Your task to perform on an android device: visit the assistant section in the google photos Image 0: 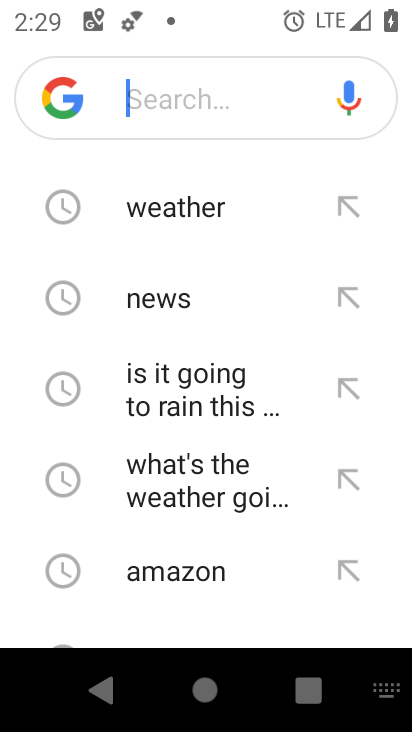
Step 0: press home button
Your task to perform on an android device: visit the assistant section in the google photos Image 1: 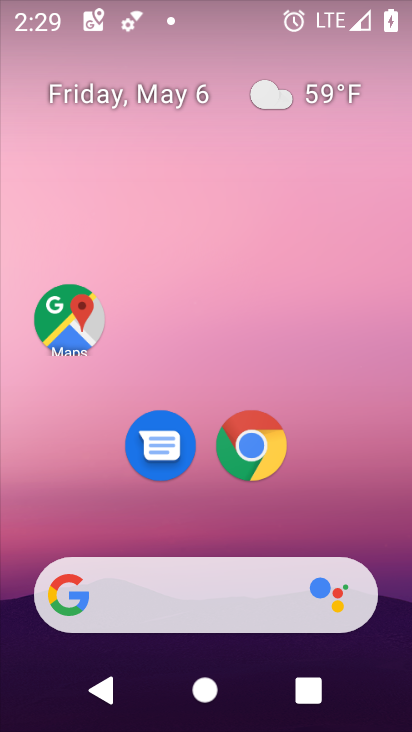
Step 1: drag from (286, 528) to (249, 175)
Your task to perform on an android device: visit the assistant section in the google photos Image 2: 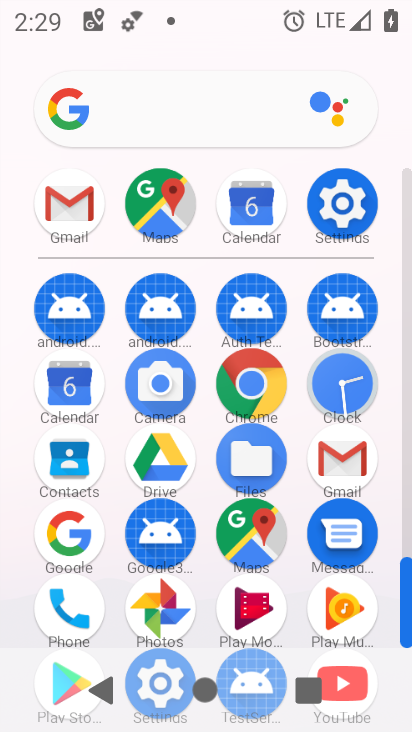
Step 2: click (143, 611)
Your task to perform on an android device: visit the assistant section in the google photos Image 3: 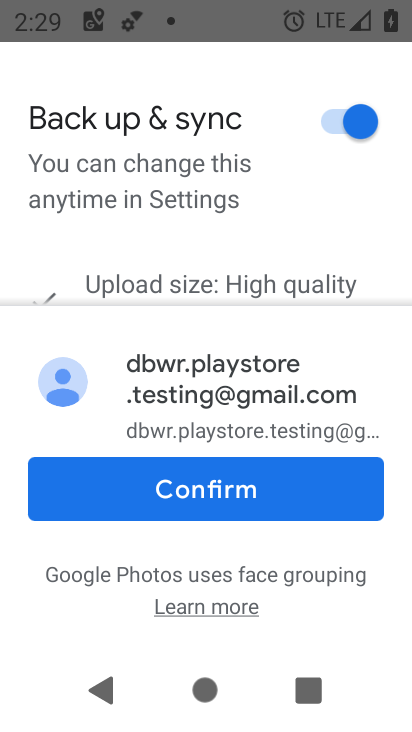
Step 3: click (211, 488)
Your task to perform on an android device: visit the assistant section in the google photos Image 4: 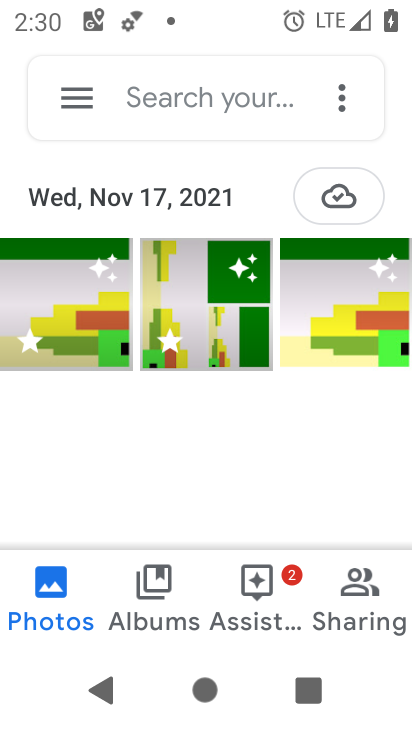
Step 4: click (295, 578)
Your task to perform on an android device: visit the assistant section in the google photos Image 5: 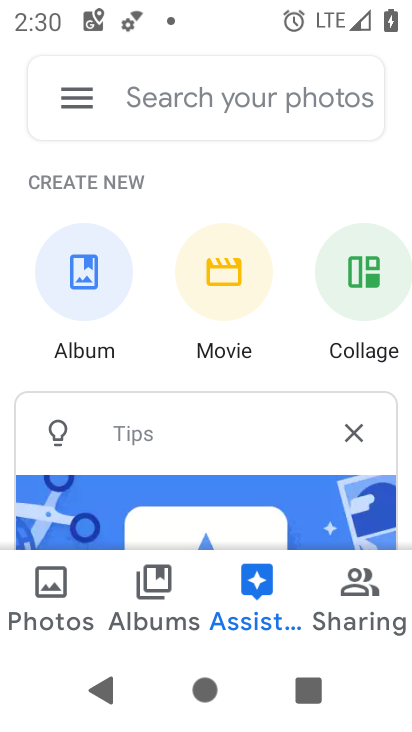
Step 5: task complete